Your task to perform on an android device: turn on translation in the chrome app Image 0: 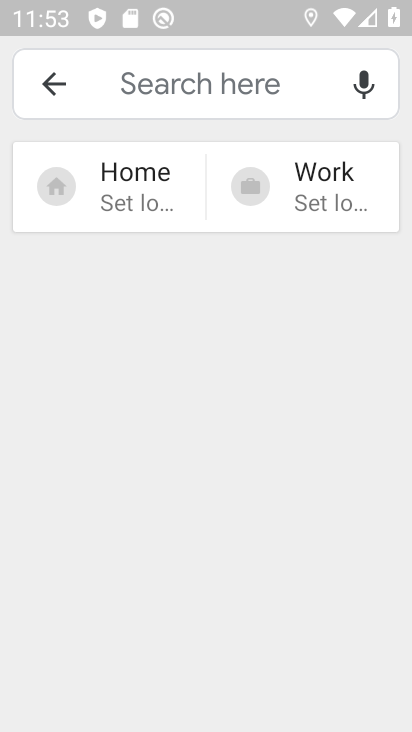
Step 0: press home button
Your task to perform on an android device: turn on translation in the chrome app Image 1: 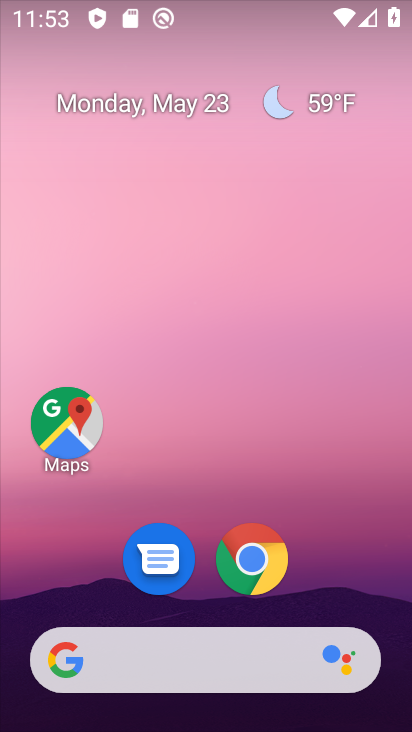
Step 1: drag from (393, 641) to (303, 24)
Your task to perform on an android device: turn on translation in the chrome app Image 2: 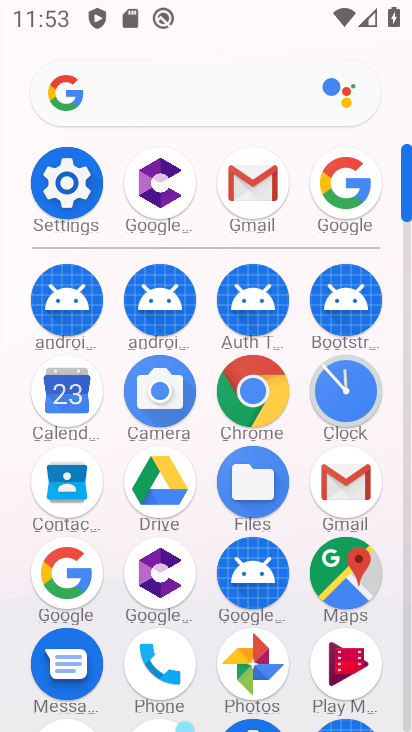
Step 2: click (258, 397)
Your task to perform on an android device: turn on translation in the chrome app Image 3: 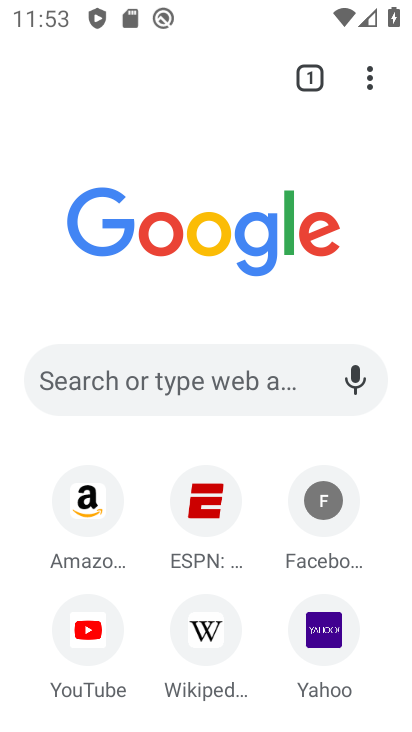
Step 3: click (365, 61)
Your task to perform on an android device: turn on translation in the chrome app Image 4: 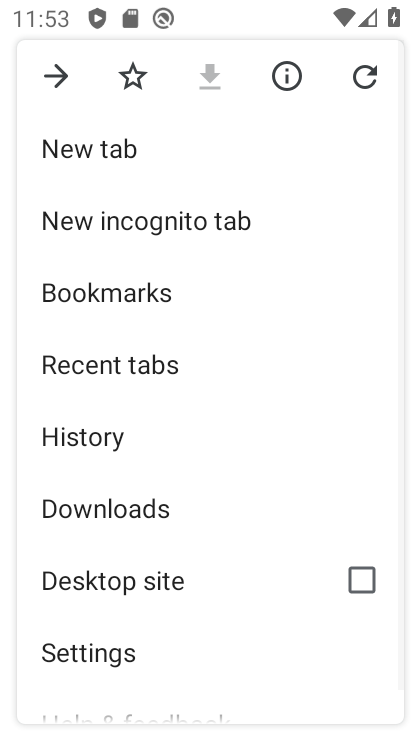
Step 4: drag from (138, 659) to (214, 197)
Your task to perform on an android device: turn on translation in the chrome app Image 5: 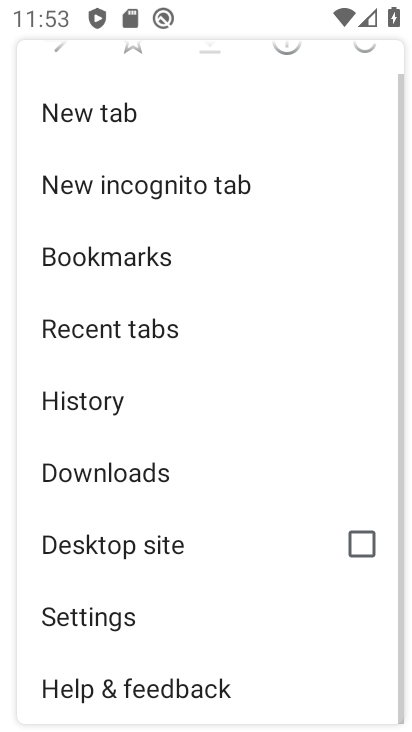
Step 5: click (158, 621)
Your task to perform on an android device: turn on translation in the chrome app Image 6: 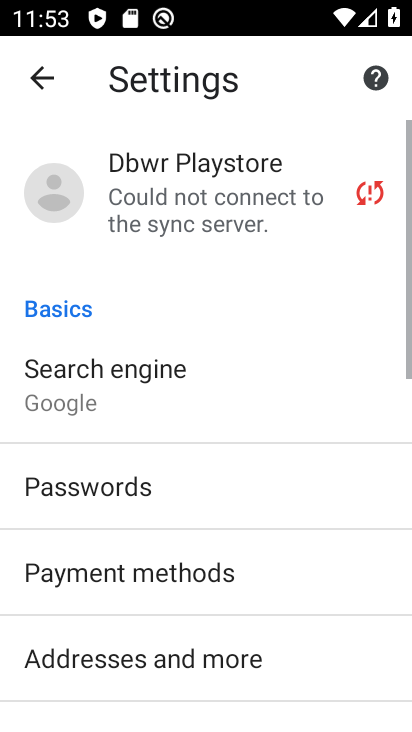
Step 6: drag from (158, 621) to (212, 145)
Your task to perform on an android device: turn on translation in the chrome app Image 7: 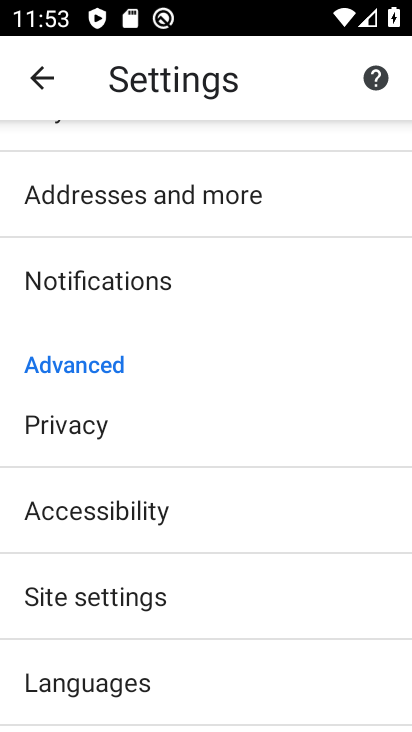
Step 7: click (142, 669)
Your task to perform on an android device: turn on translation in the chrome app Image 8: 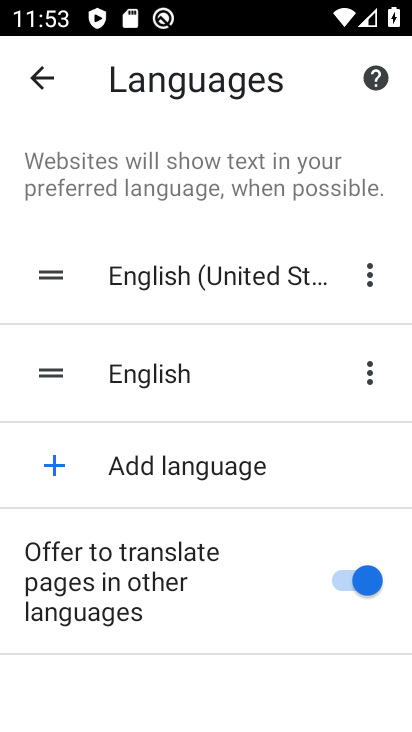
Step 8: click (162, 603)
Your task to perform on an android device: turn on translation in the chrome app Image 9: 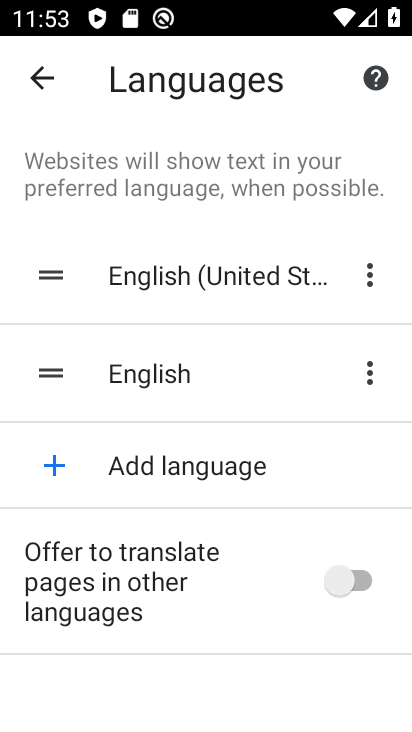
Step 9: click (162, 603)
Your task to perform on an android device: turn on translation in the chrome app Image 10: 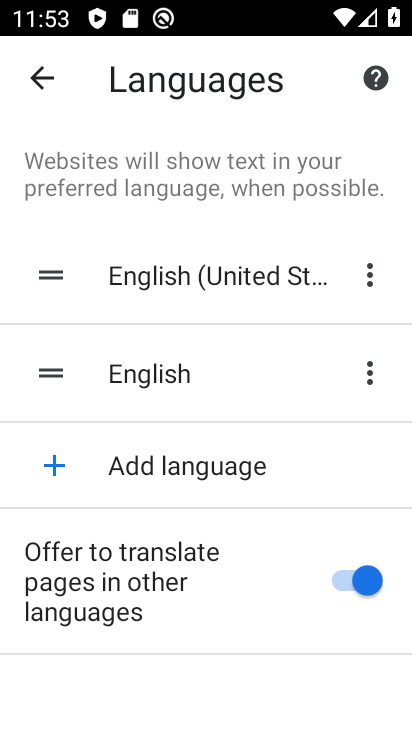
Step 10: task complete